Your task to perform on an android device: Open network settings Image 0: 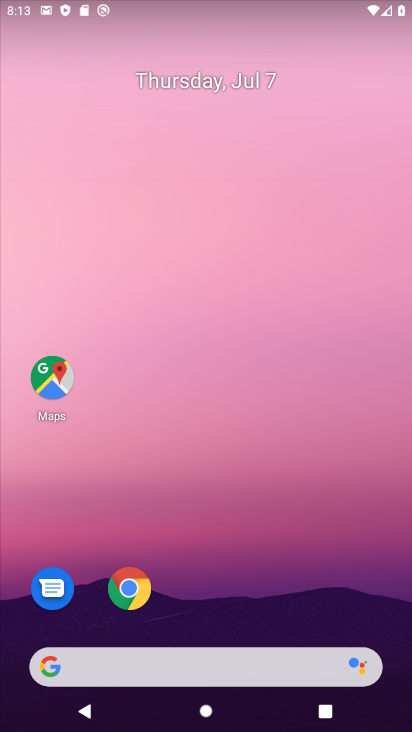
Step 0: drag from (327, 496) to (282, 205)
Your task to perform on an android device: Open network settings Image 1: 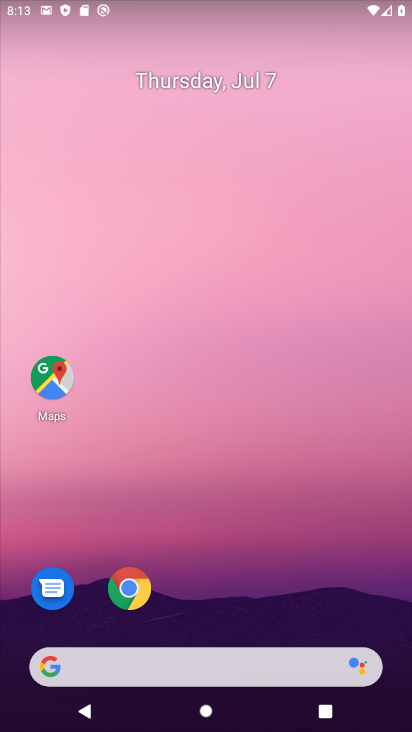
Step 1: drag from (342, 596) to (295, 228)
Your task to perform on an android device: Open network settings Image 2: 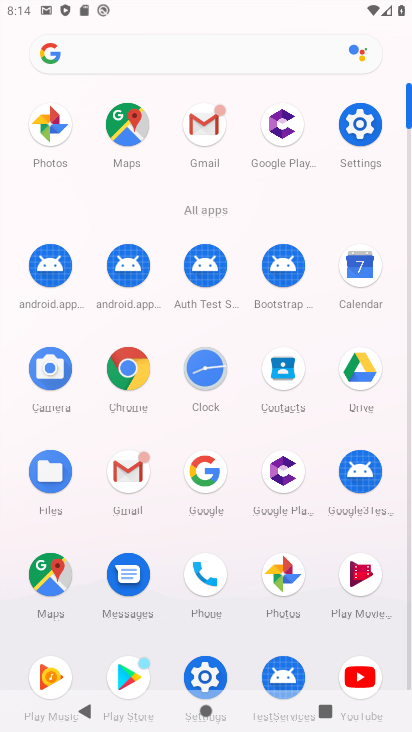
Step 2: click (207, 671)
Your task to perform on an android device: Open network settings Image 3: 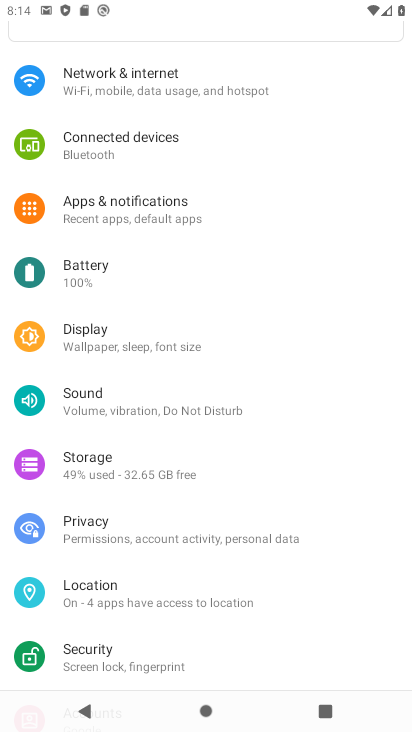
Step 3: click (168, 66)
Your task to perform on an android device: Open network settings Image 4: 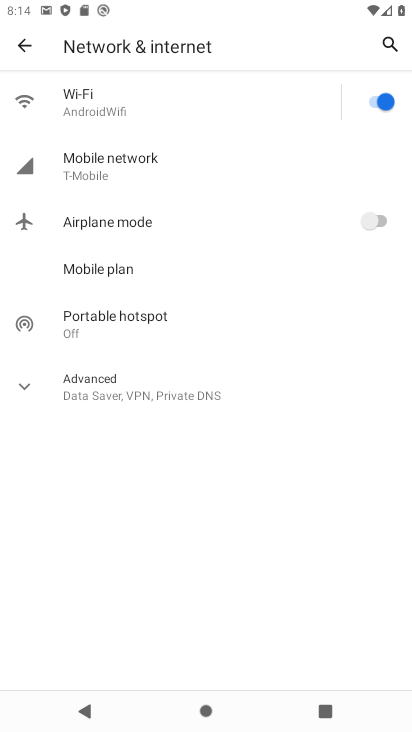
Step 4: click (168, 66)
Your task to perform on an android device: Open network settings Image 5: 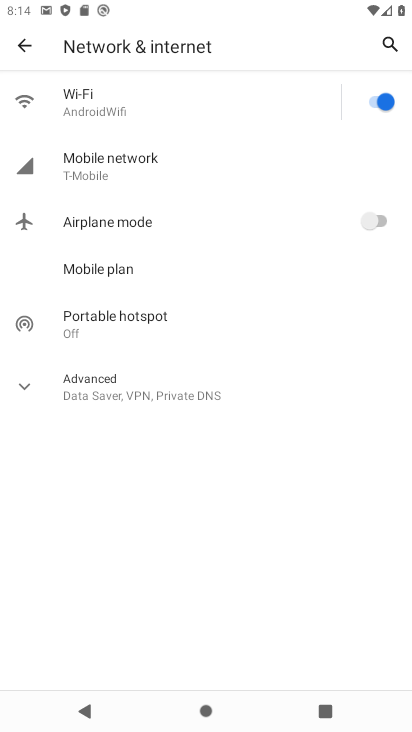
Step 5: task complete